Your task to perform on an android device: What's the weather? Image 0: 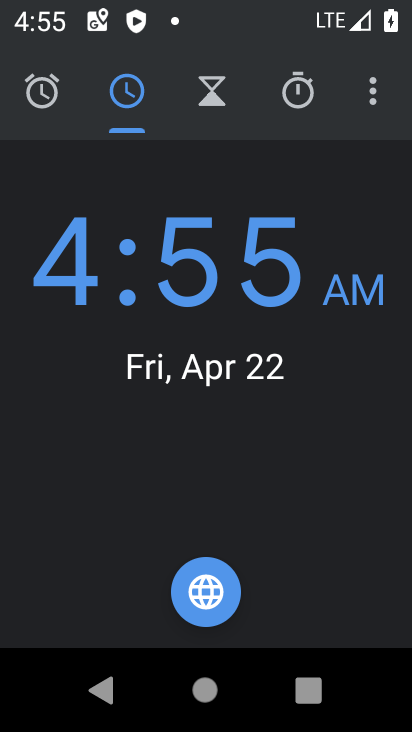
Step 0: press home button
Your task to perform on an android device: What's the weather? Image 1: 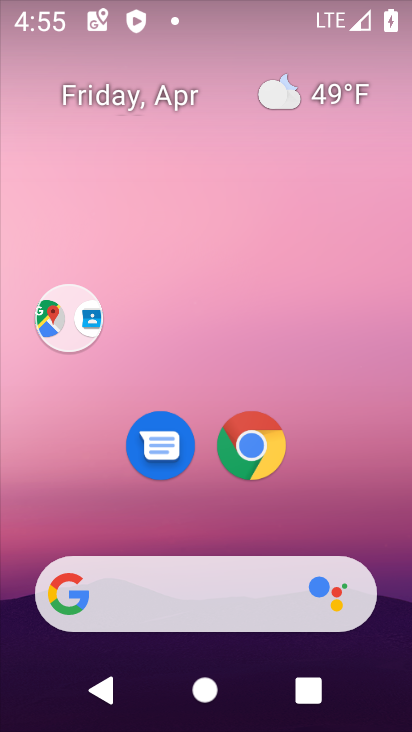
Step 1: drag from (351, 499) to (381, 71)
Your task to perform on an android device: What's the weather? Image 2: 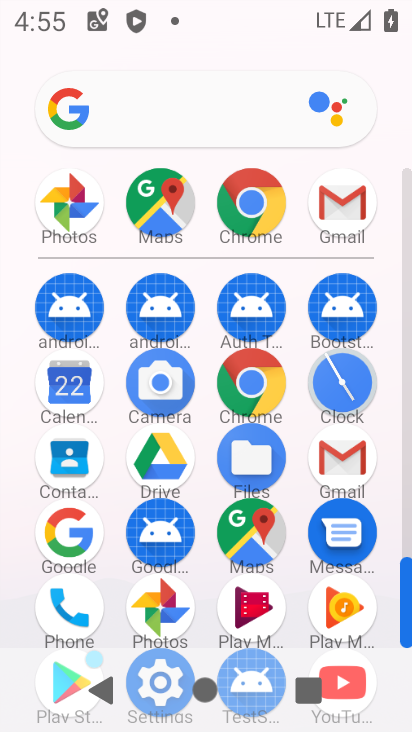
Step 2: click (245, 381)
Your task to perform on an android device: What's the weather? Image 3: 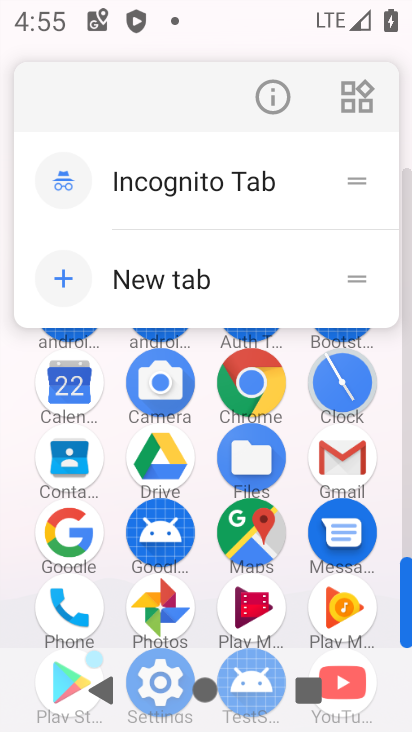
Step 3: click (245, 381)
Your task to perform on an android device: What's the weather? Image 4: 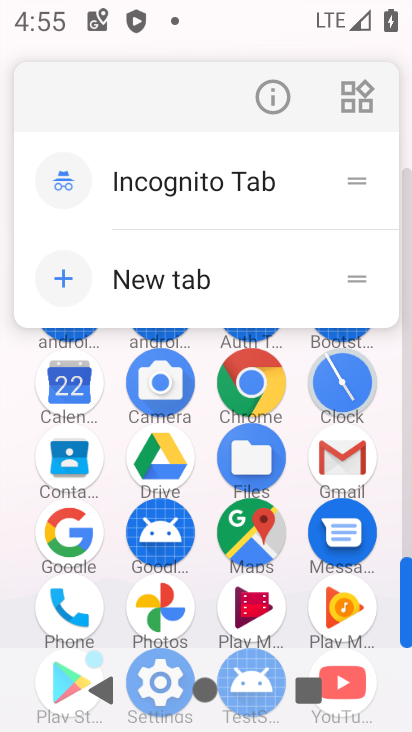
Step 4: click (256, 391)
Your task to perform on an android device: What's the weather? Image 5: 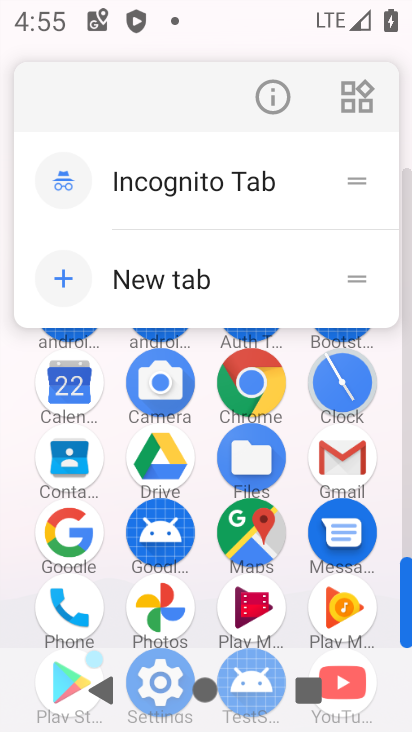
Step 5: click (256, 391)
Your task to perform on an android device: What's the weather? Image 6: 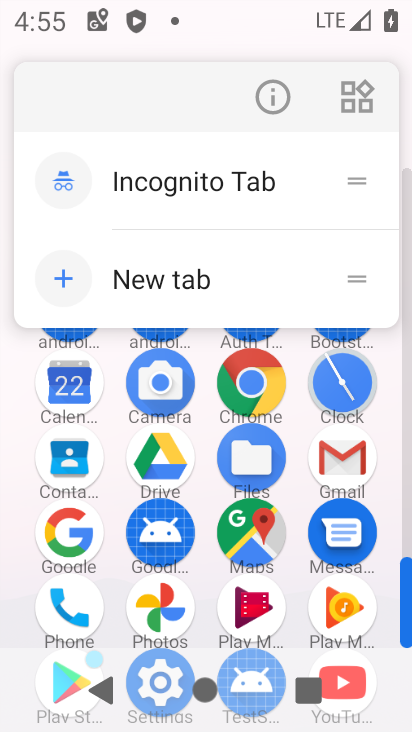
Step 6: click (256, 391)
Your task to perform on an android device: What's the weather? Image 7: 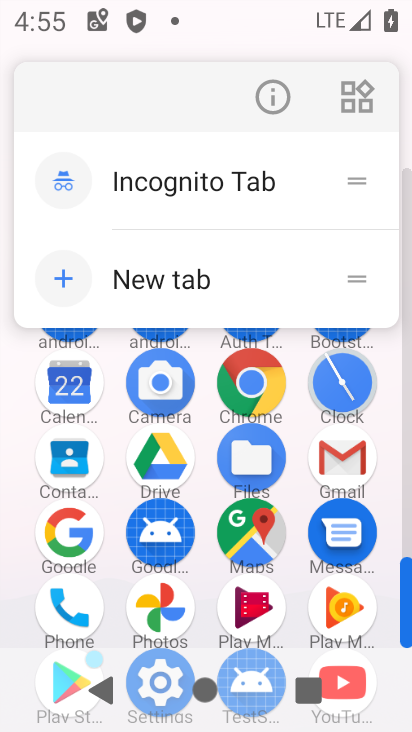
Step 7: click (306, 424)
Your task to perform on an android device: What's the weather? Image 8: 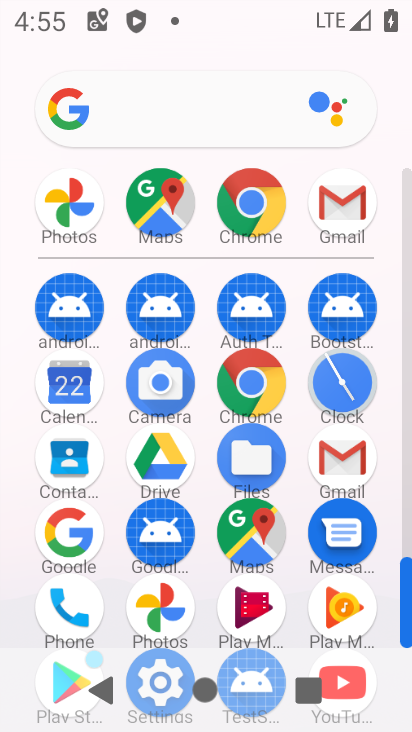
Step 8: click (268, 390)
Your task to perform on an android device: What's the weather? Image 9: 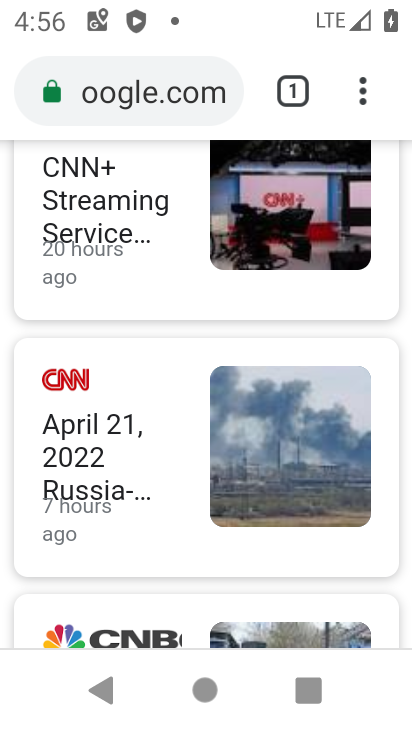
Step 9: task complete